Your task to perform on an android device: change the clock display to digital Image 0: 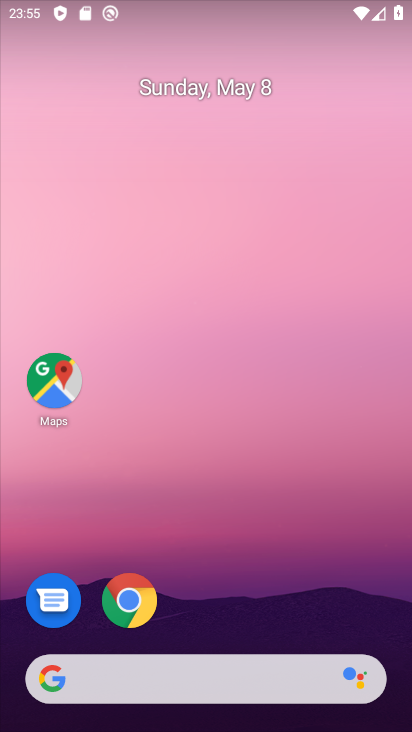
Step 0: drag from (230, 609) to (224, 224)
Your task to perform on an android device: change the clock display to digital Image 1: 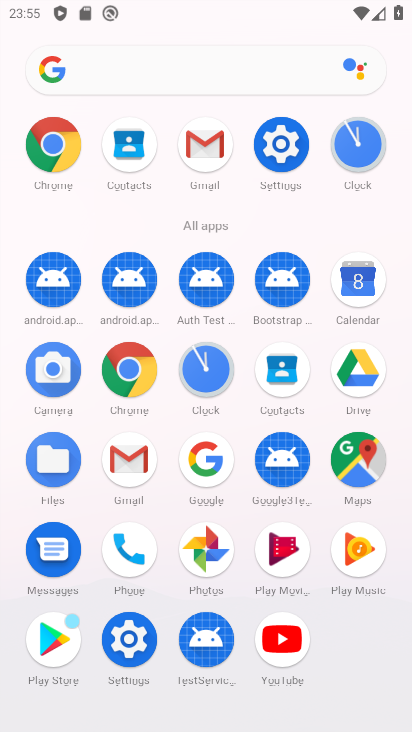
Step 1: click (365, 134)
Your task to perform on an android device: change the clock display to digital Image 2: 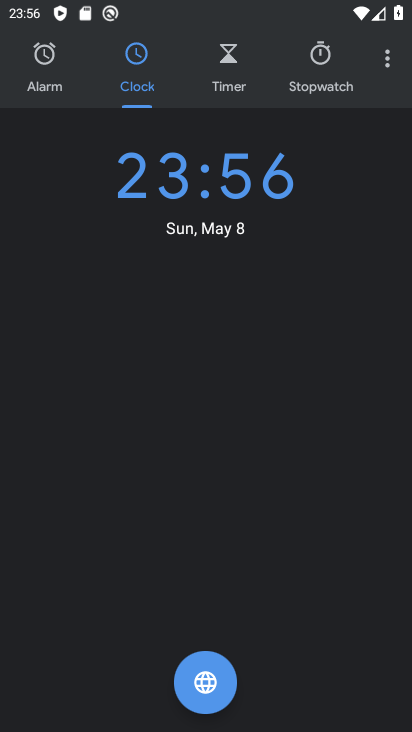
Step 2: click (398, 81)
Your task to perform on an android device: change the clock display to digital Image 3: 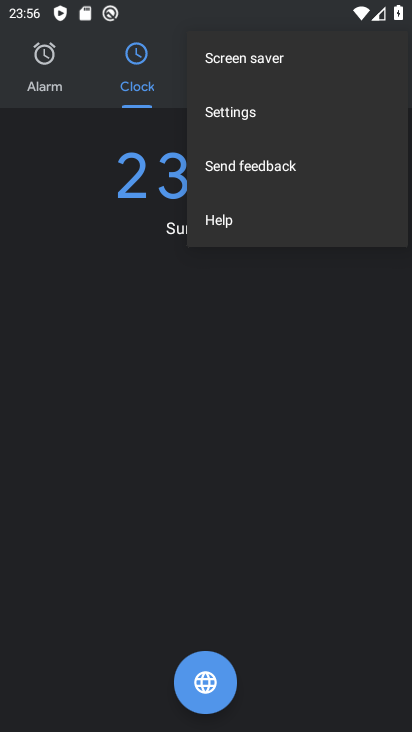
Step 3: click (345, 112)
Your task to perform on an android device: change the clock display to digital Image 4: 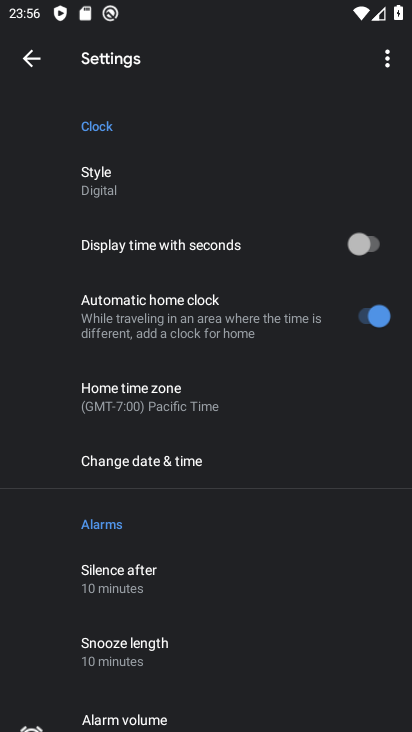
Step 4: click (157, 189)
Your task to perform on an android device: change the clock display to digital Image 5: 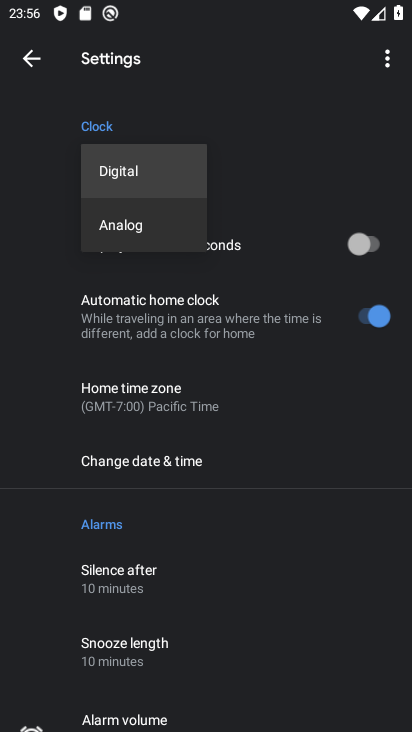
Step 5: task complete